Your task to perform on an android device: Search for Italian restaurants on Maps Image 0: 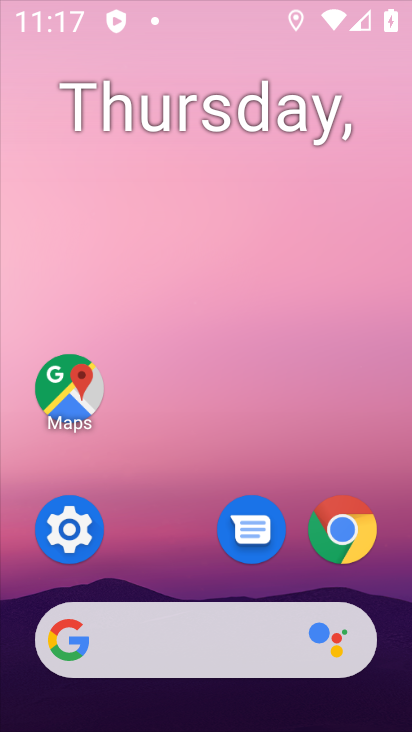
Step 0: drag from (255, 698) to (236, 102)
Your task to perform on an android device: Search for Italian restaurants on Maps Image 1: 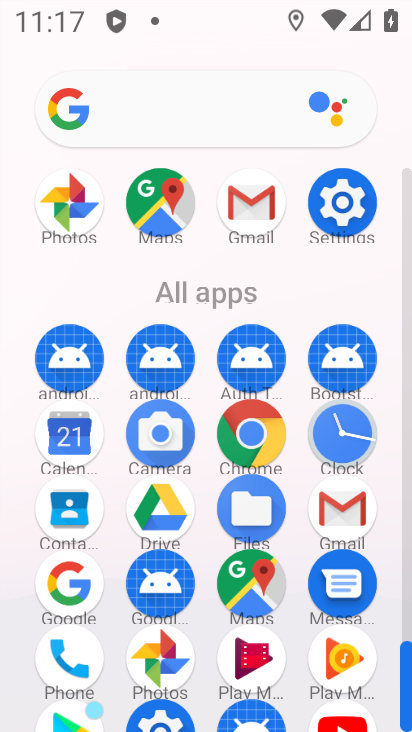
Step 1: click (172, 198)
Your task to perform on an android device: Search for Italian restaurants on Maps Image 2: 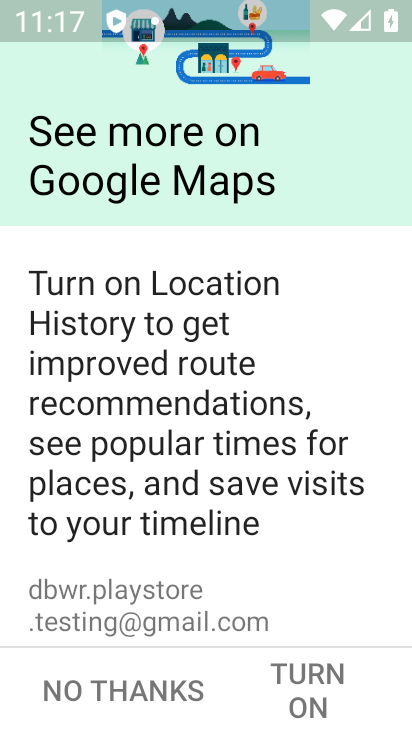
Step 2: click (187, 691)
Your task to perform on an android device: Search for Italian restaurants on Maps Image 3: 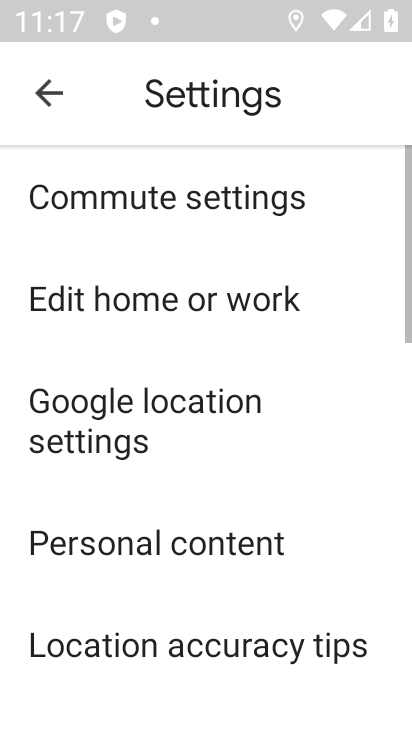
Step 3: click (39, 94)
Your task to perform on an android device: Search for Italian restaurants on Maps Image 4: 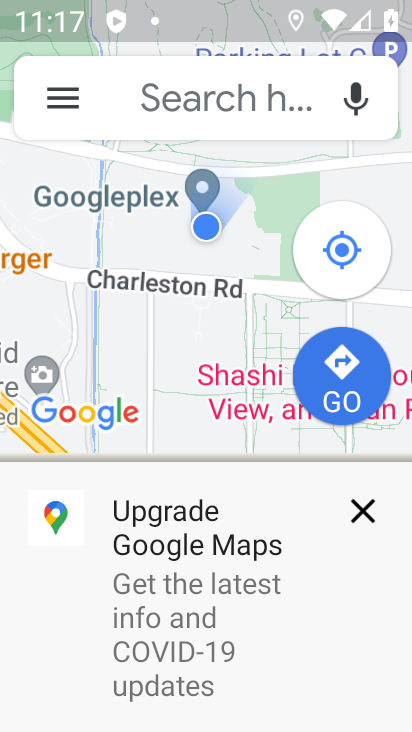
Step 4: click (253, 97)
Your task to perform on an android device: Search for Italian restaurants on Maps Image 5: 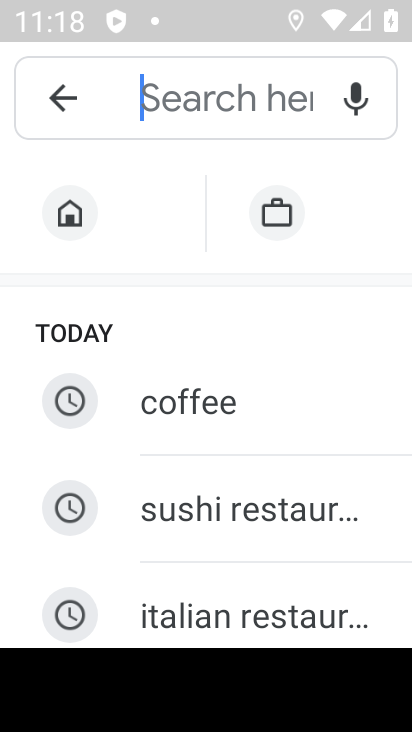
Step 5: type "italian"
Your task to perform on an android device: Search for Italian restaurants on Maps Image 6: 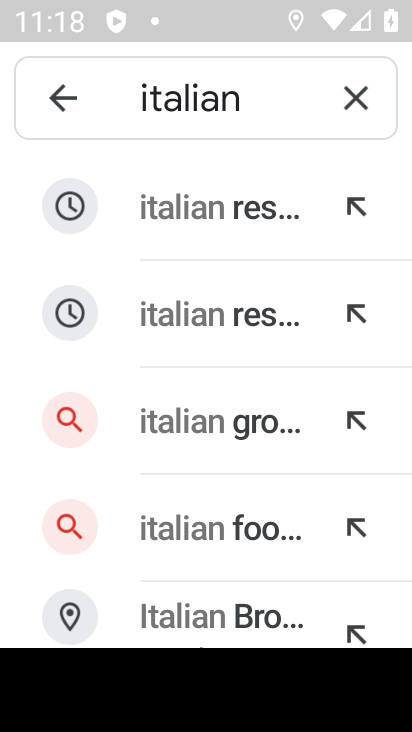
Step 6: click (243, 222)
Your task to perform on an android device: Search for Italian restaurants on Maps Image 7: 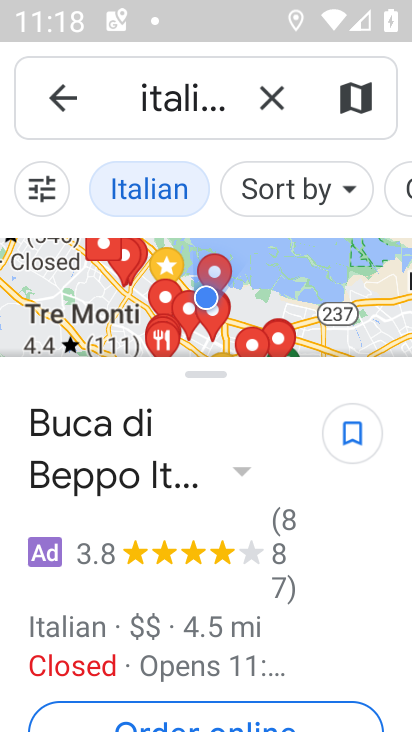
Step 7: task complete